Your task to perform on an android device: change the upload size in google photos Image 0: 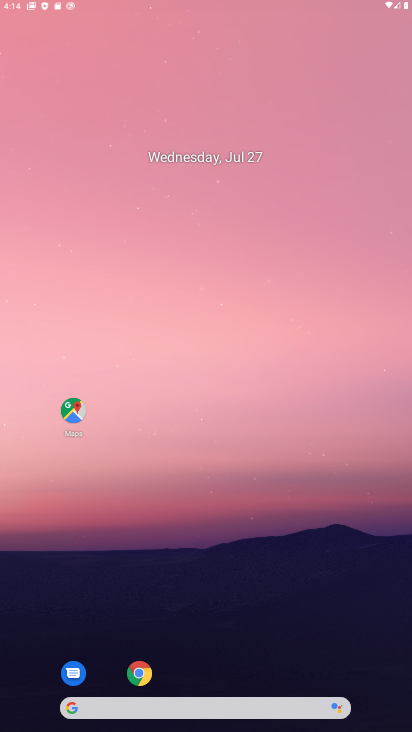
Step 0: press home button
Your task to perform on an android device: change the upload size in google photos Image 1: 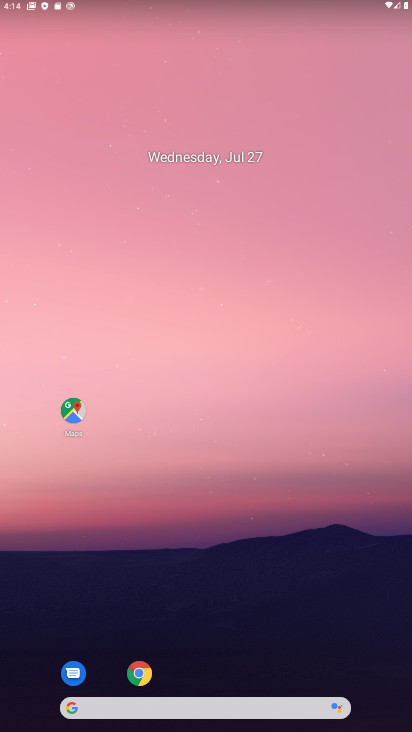
Step 1: drag from (312, 619) to (291, 3)
Your task to perform on an android device: change the upload size in google photos Image 2: 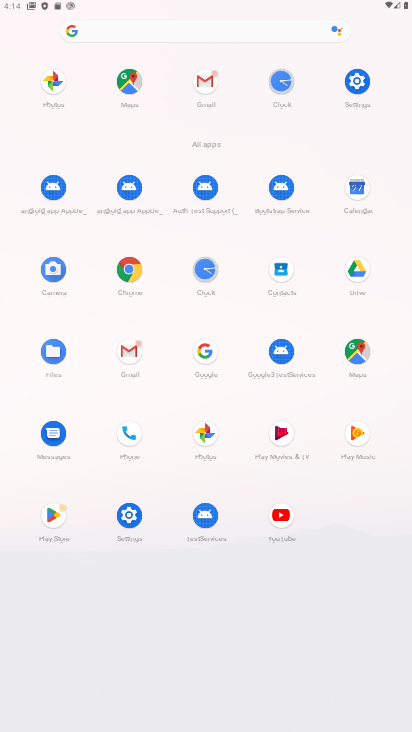
Step 2: click (210, 435)
Your task to perform on an android device: change the upload size in google photos Image 3: 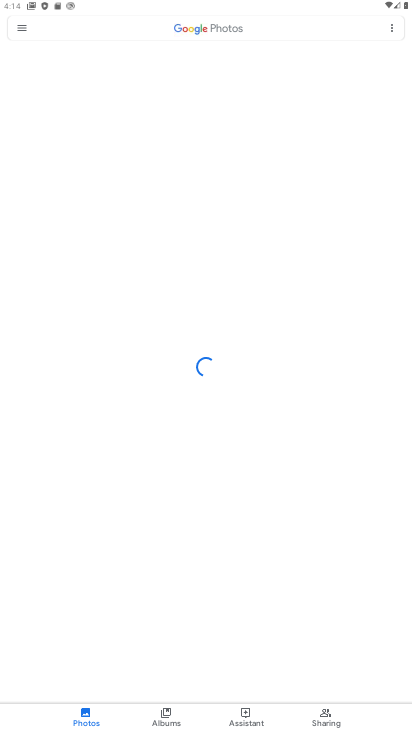
Step 3: click (20, 26)
Your task to perform on an android device: change the upload size in google photos Image 4: 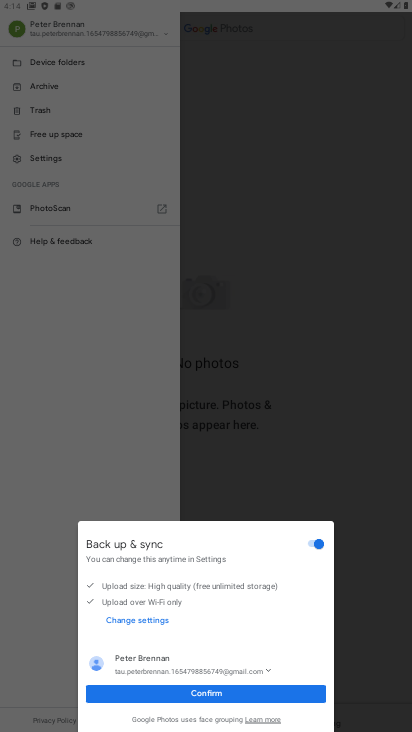
Step 4: click (234, 694)
Your task to perform on an android device: change the upload size in google photos Image 5: 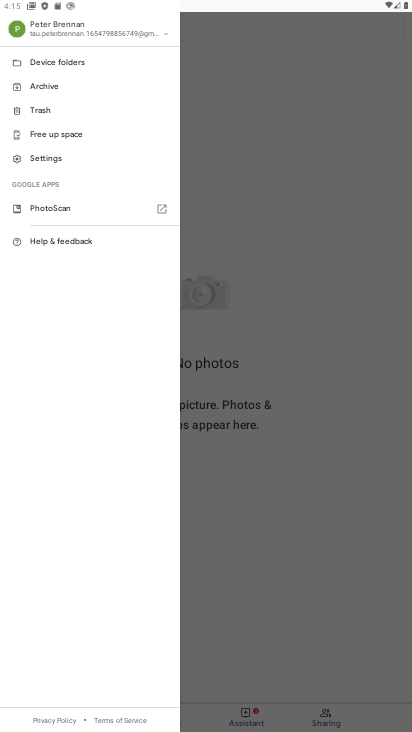
Step 5: click (40, 155)
Your task to perform on an android device: change the upload size in google photos Image 6: 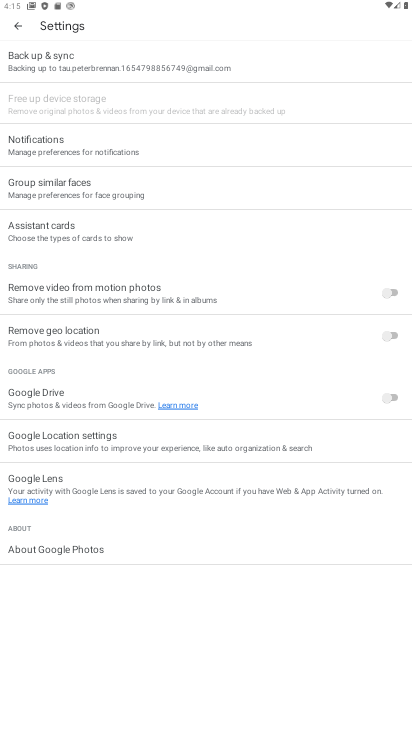
Step 6: click (83, 67)
Your task to perform on an android device: change the upload size in google photos Image 7: 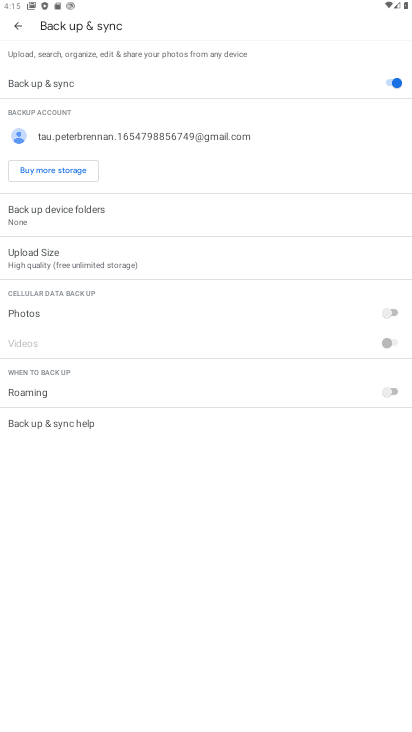
Step 7: click (78, 252)
Your task to perform on an android device: change the upload size in google photos Image 8: 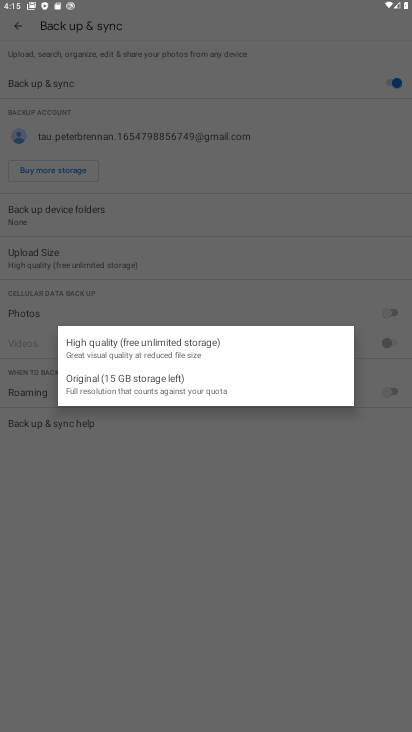
Step 8: click (98, 375)
Your task to perform on an android device: change the upload size in google photos Image 9: 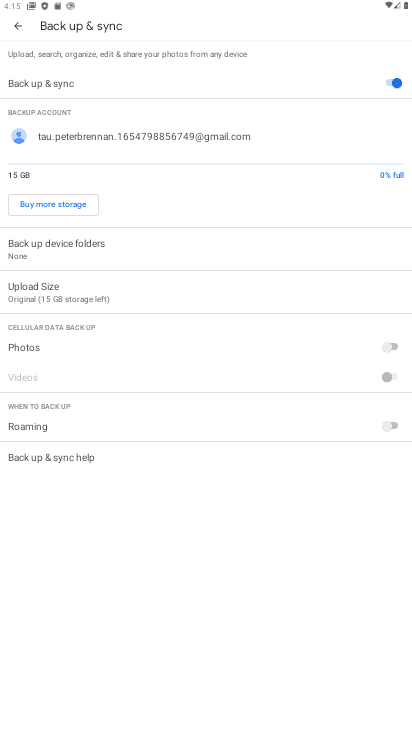
Step 9: task complete